Your task to perform on an android device: stop showing notifications on the lock screen Image 0: 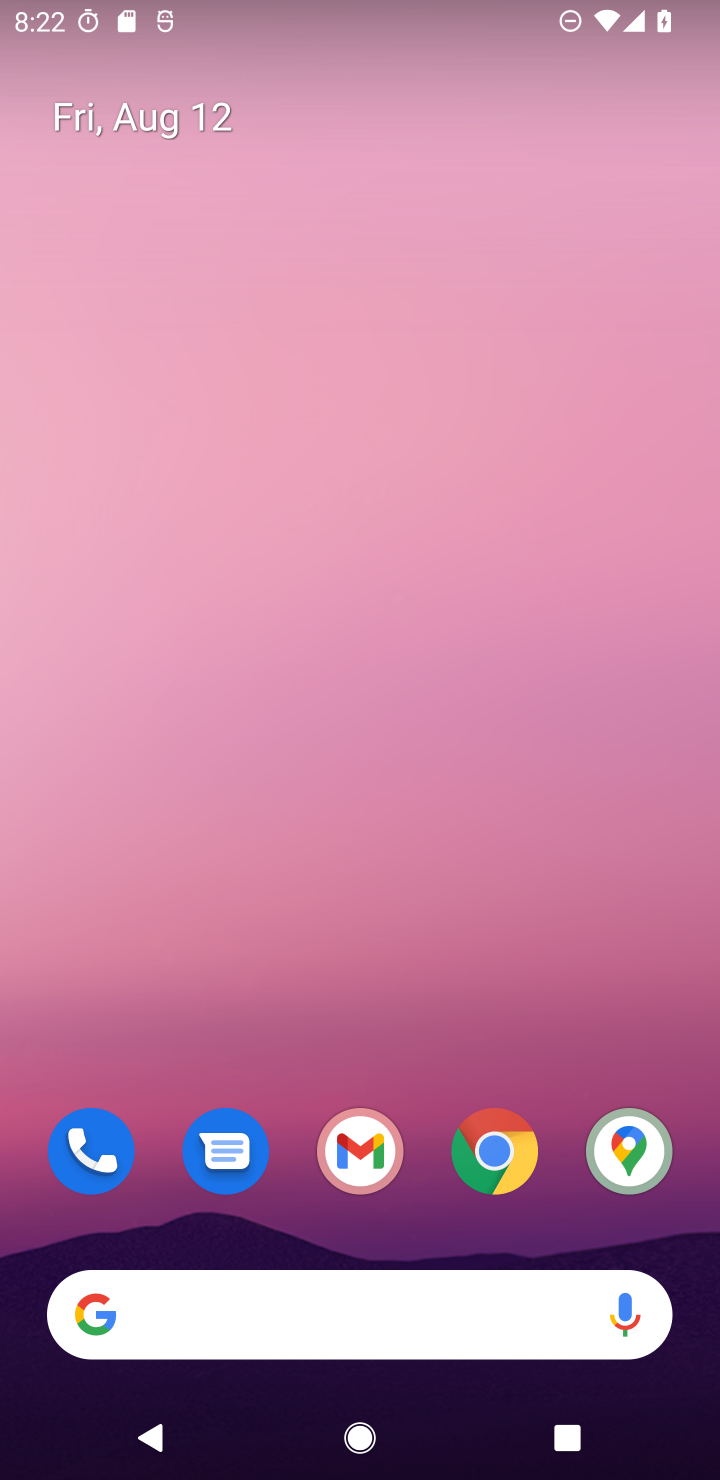
Step 0: drag from (431, 1073) to (329, 0)
Your task to perform on an android device: stop showing notifications on the lock screen Image 1: 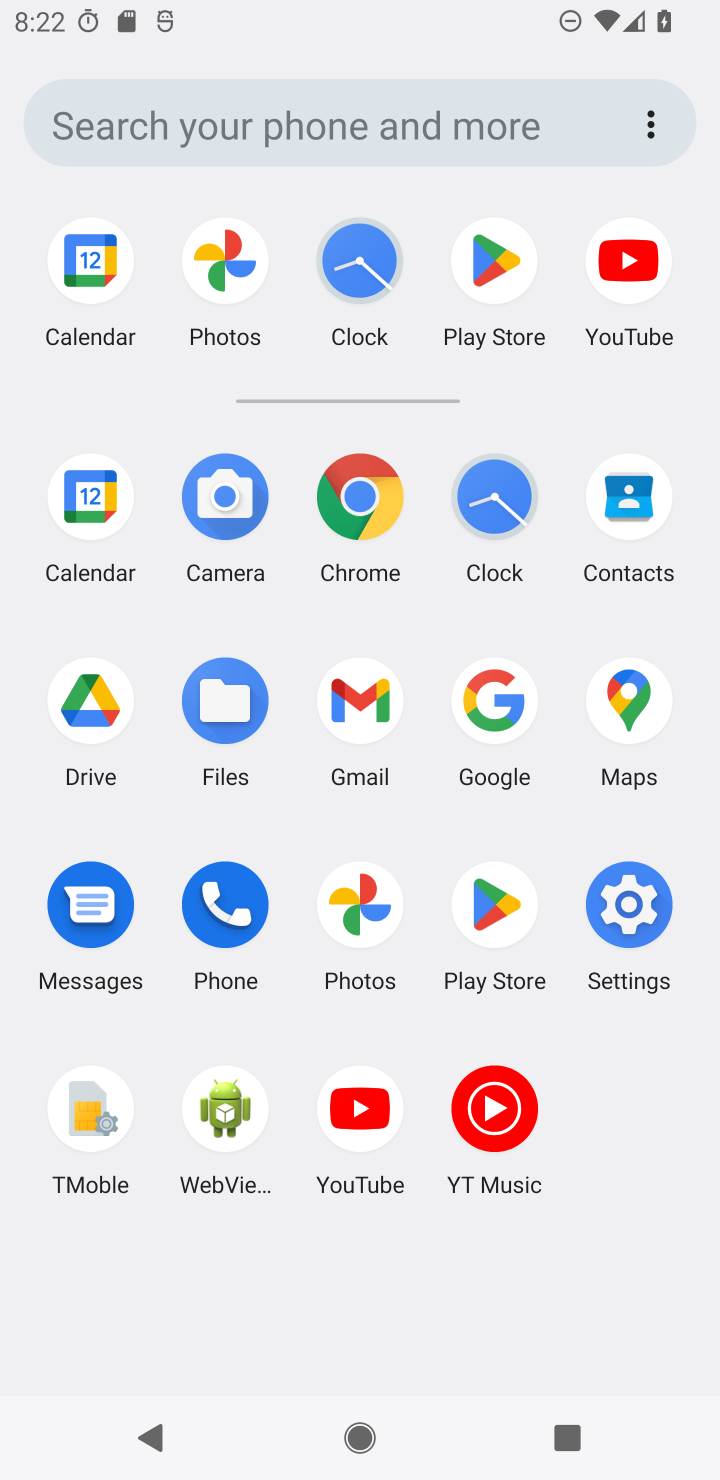
Step 1: click (650, 911)
Your task to perform on an android device: stop showing notifications on the lock screen Image 2: 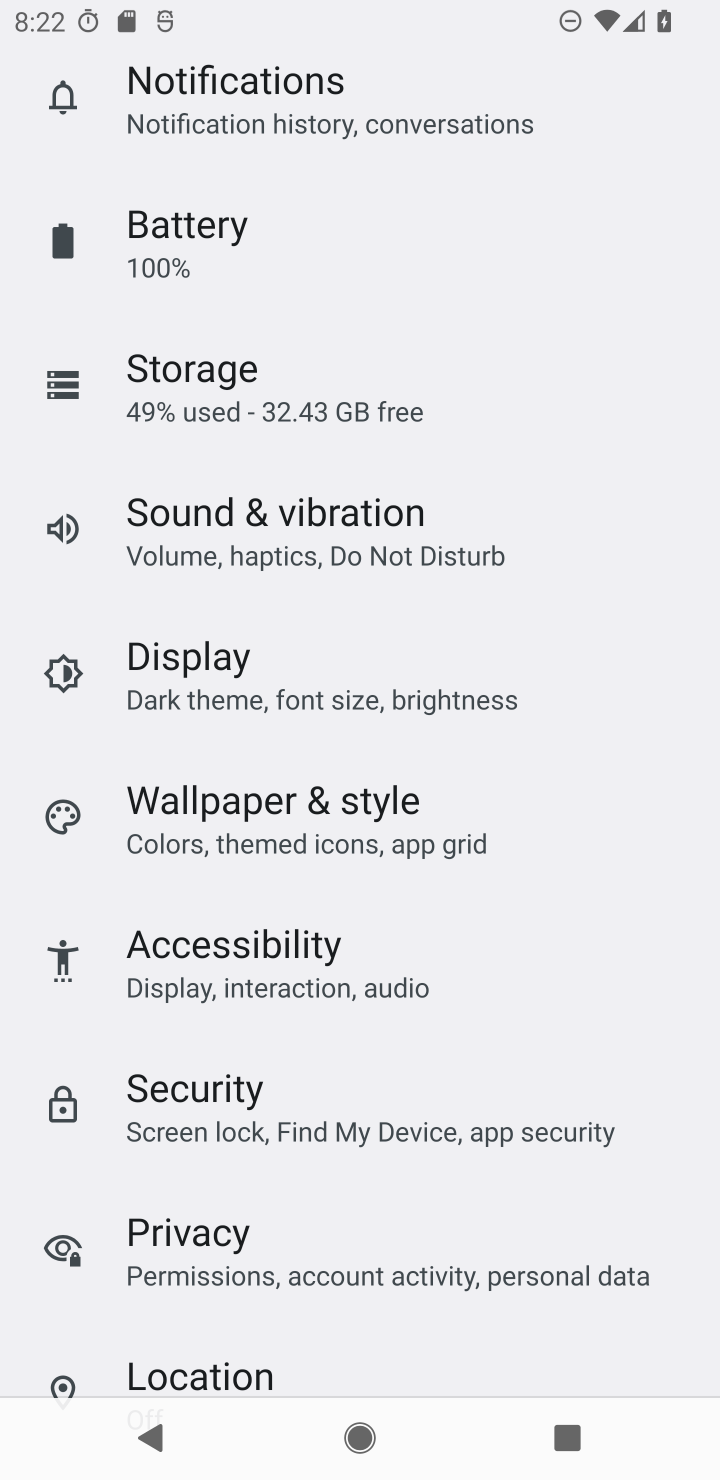
Step 2: drag from (536, 332) to (375, 1084)
Your task to perform on an android device: stop showing notifications on the lock screen Image 3: 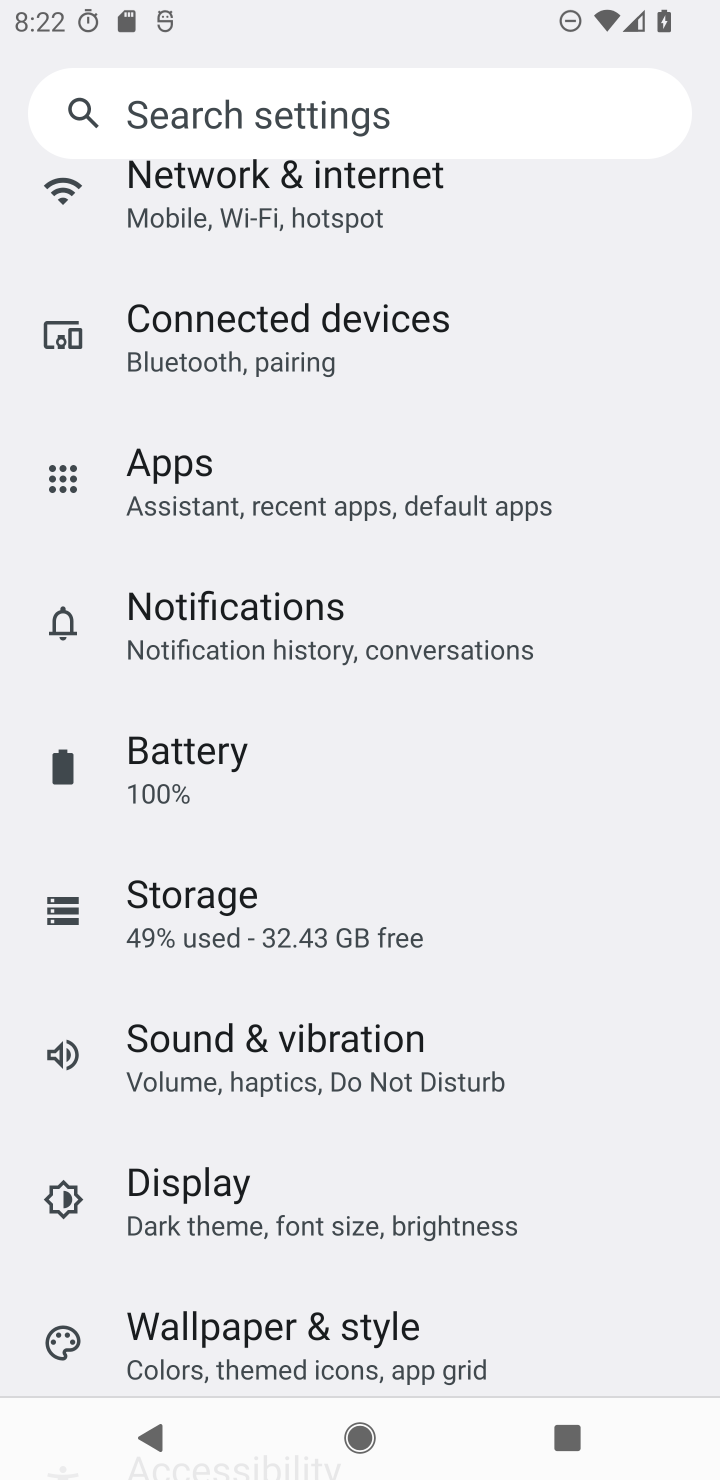
Step 3: click (242, 637)
Your task to perform on an android device: stop showing notifications on the lock screen Image 4: 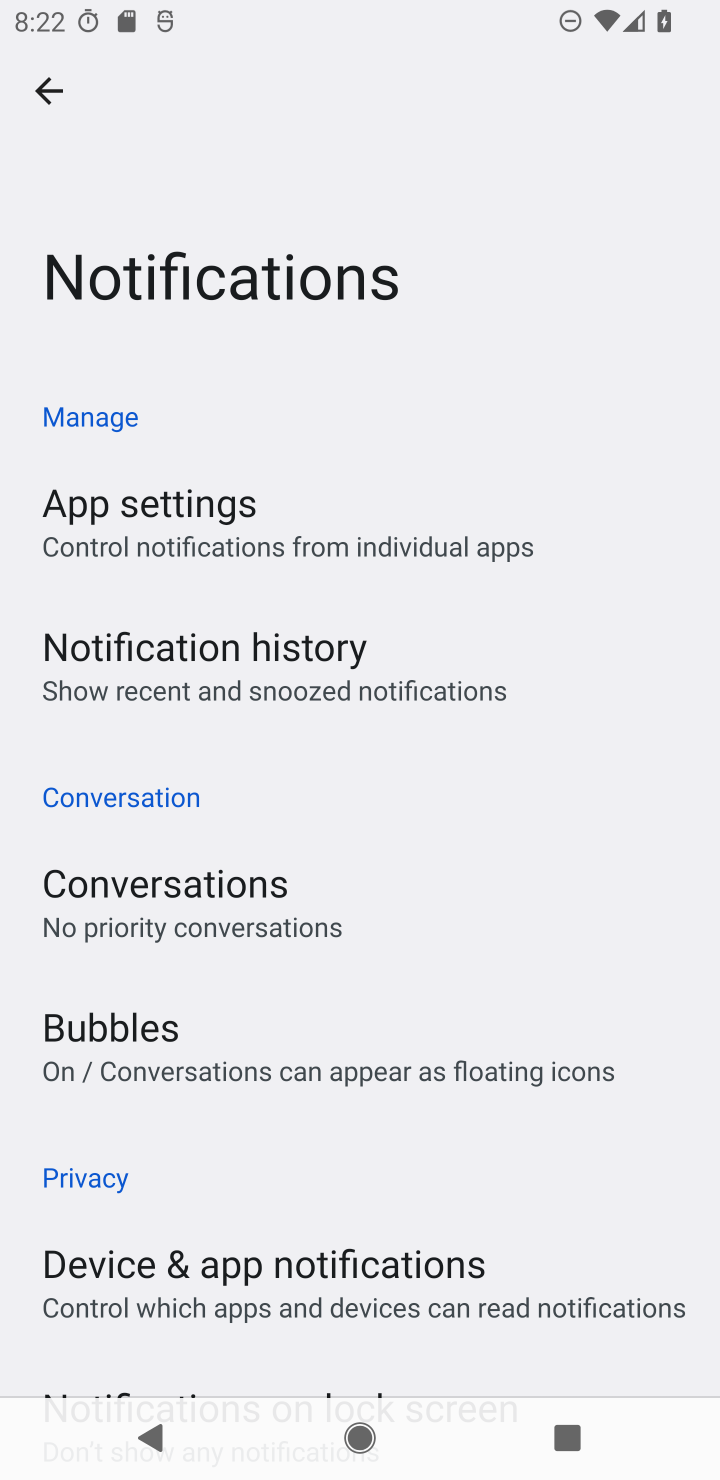
Step 4: drag from (514, 1022) to (580, 399)
Your task to perform on an android device: stop showing notifications on the lock screen Image 5: 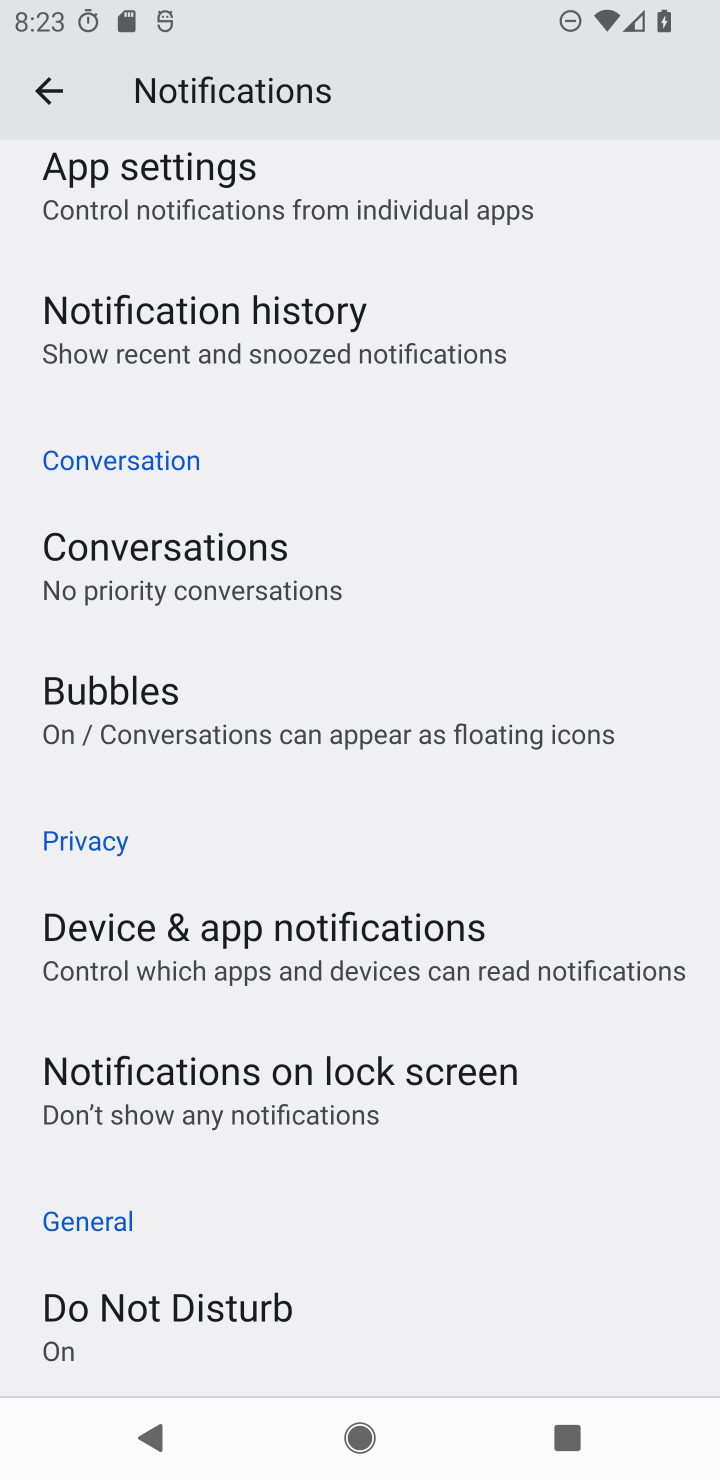
Step 5: click (341, 1036)
Your task to perform on an android device: stop showing notifications on the lock screen Image 6: 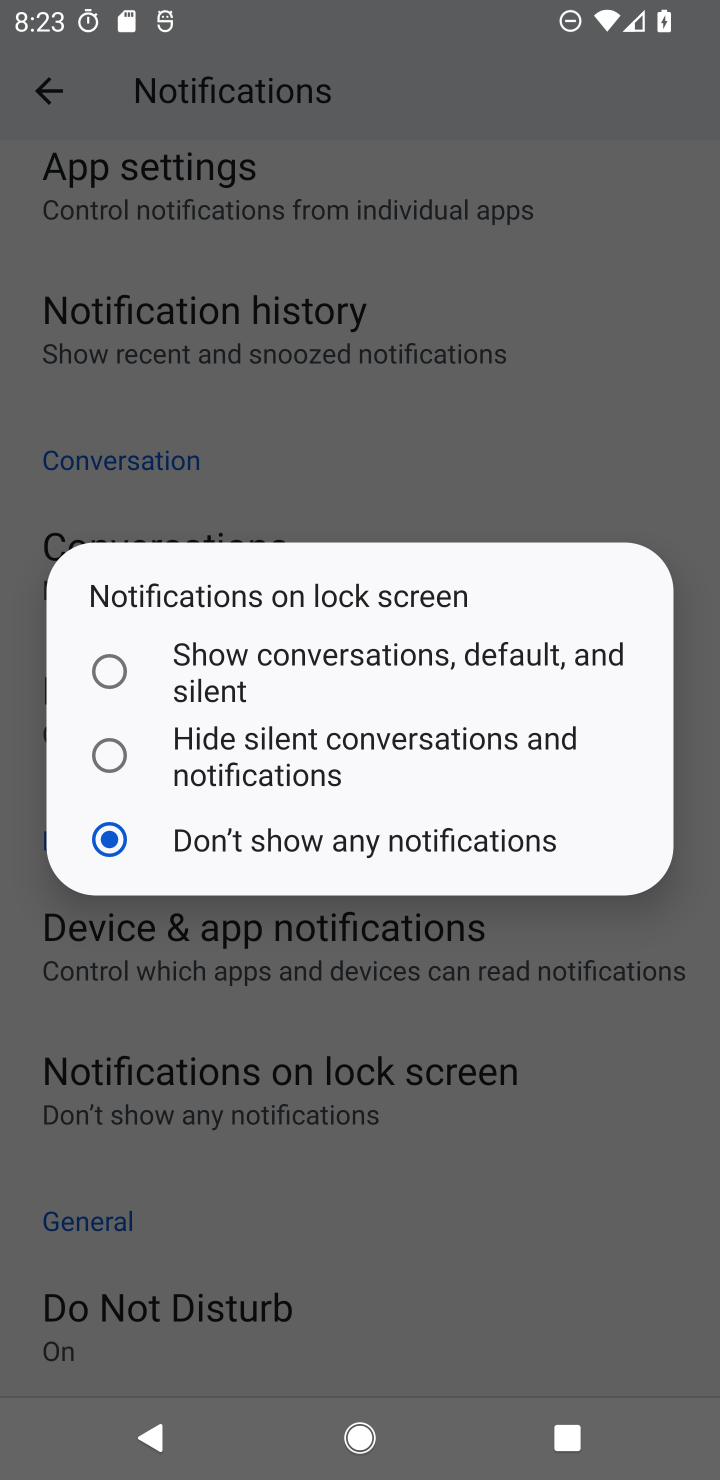
Step 6: task complete